Your task to perform on an android device: Search for "razer blackwidow" on newegg.com, select the first entry, and add it to the cart. Image 0: 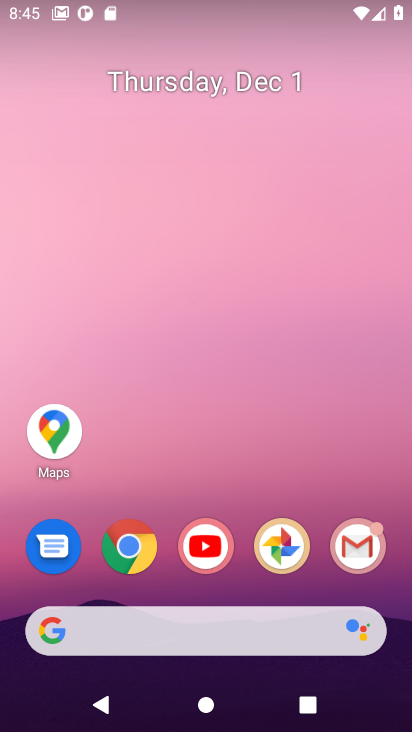
Step 0: click (125, 556)
Your task to perform on an android device: Search for "razer blackwidow" on newegg.com, select the first entry, and add it to the cart. Image 1: 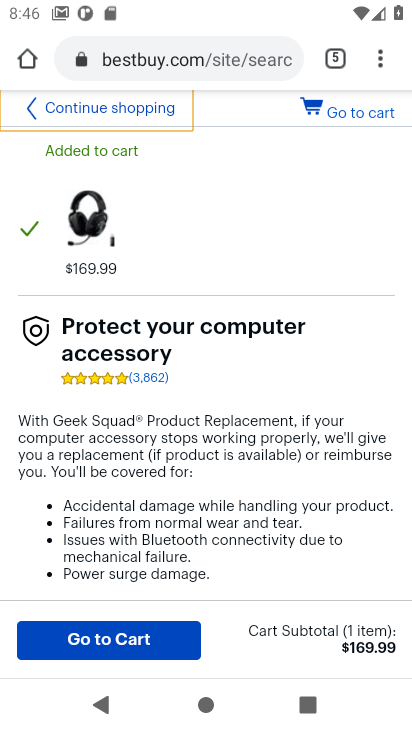
Step 1: click (172, 63)
Your task to perform on an android device: Search for "razer blackwidow" on newegg.com, select the first entry, and add it to the cart. Image 2: 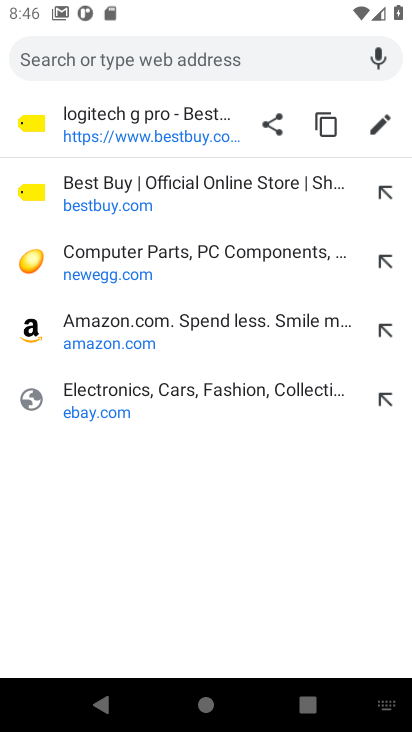
Step 2: click (109, 260)
Your task to perform on an android device: Search for "razer blackwidow" on newegg.com, select the first entry, and add it to the cart. Image 3: 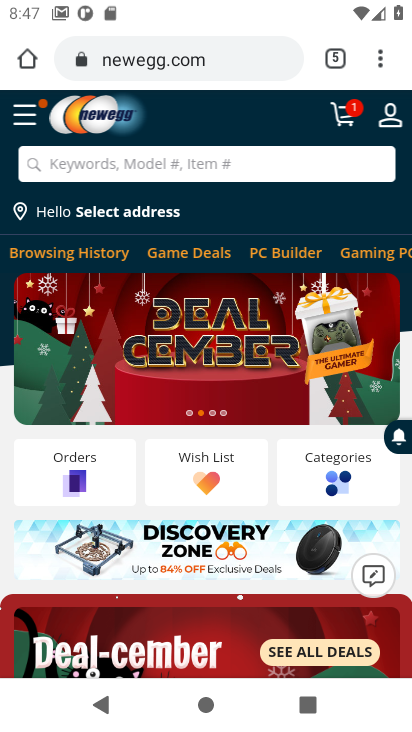
Step 3: click (77, 176)
Your task to perform on an android device: Search for "razer blackwidow" on newegg.com, select the first entry, and add it to the cart. Image 4: 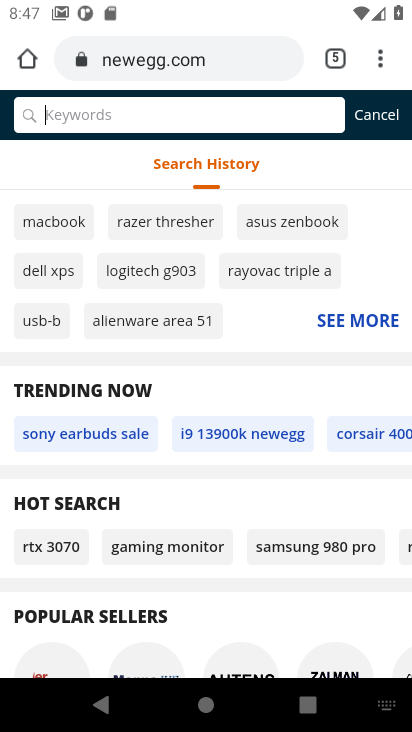
Step 4: type "razer blackwidow"
Your task to perform on an android device: Search for "razer blackwidow" on newegg.com, select the first entry, and add it to the cart. Image 5: 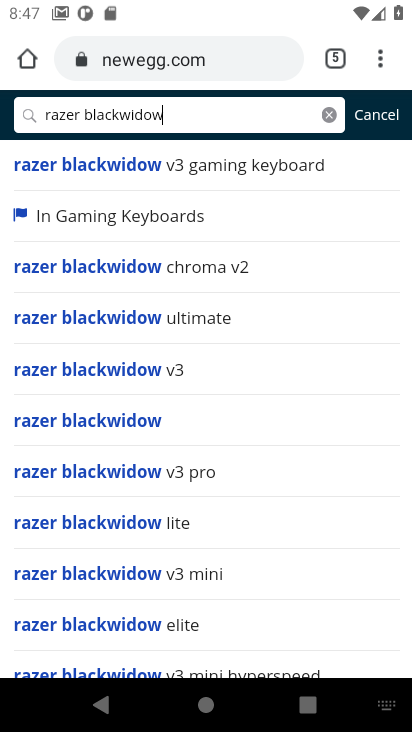
Step 5: click (110, 419)
Your task to perform on an android device: Search for "razer blackwidow" on newegg.com, select the first entry, and add it to the cart. Image 6: 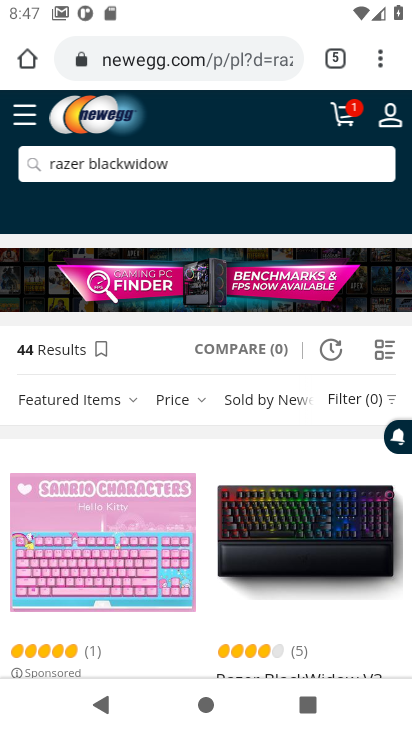
Step 6: drag from (121, 520) to (150, 229)
Your task to perform on an android device: Search for "razer blackwidow" on newegg.com, select the first entry, and add it to the cart. Image 7: 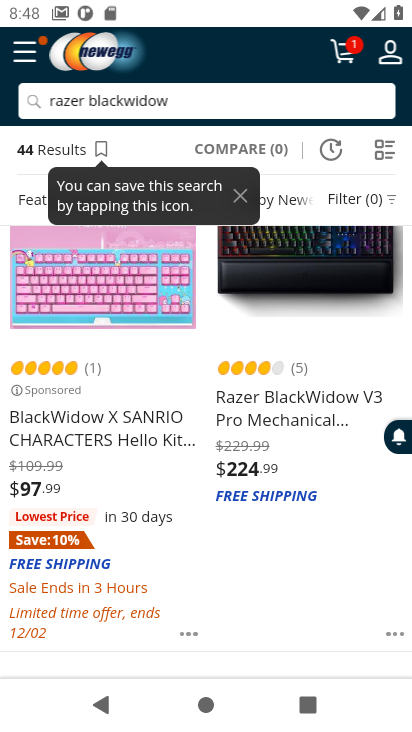
Step 7: click (101, 302)
Your task to perform on an android device: Search for "razer blackwidow" on newegg.com, select the first entry, and add it to the cart. Image 8: 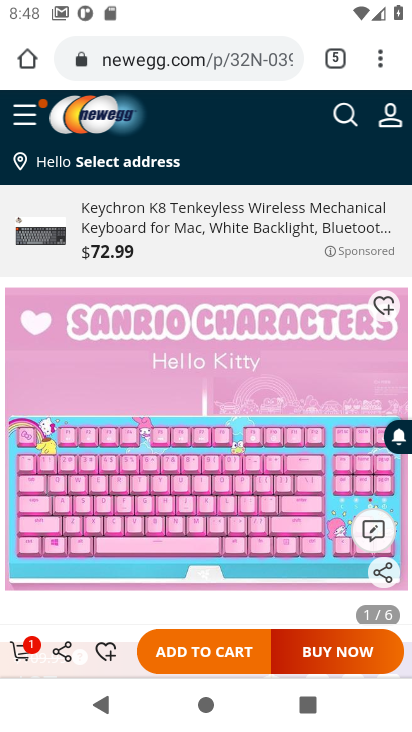
Step 8: click (194, 658)
Your task to perform on an android device: Search for "razer blackwidow" on newegg.com, select the first entry, and add it to the cart. Image 9: 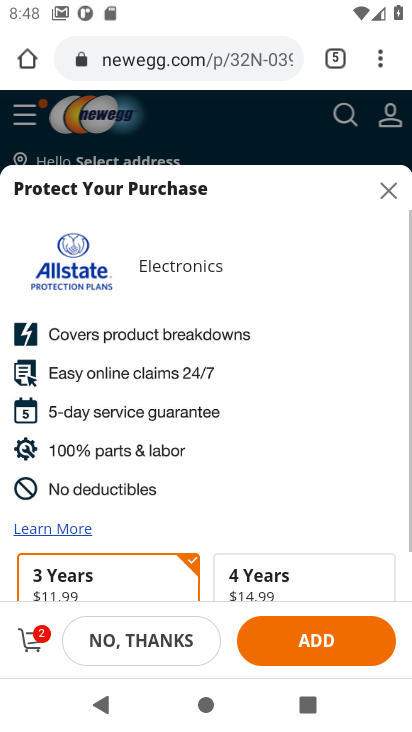
Step 9: task complete